Your task to perform on an android device: turn off notifications settings in the gmail app Image 0: 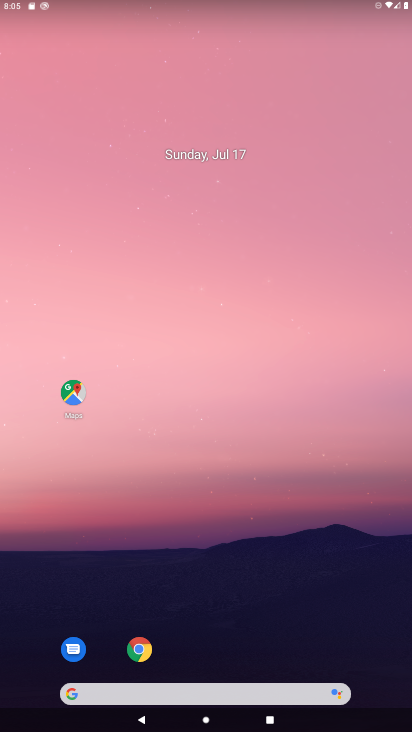
Step 0: drag from (202, 671) to (210, 51)
Your task to perform on an android device: turn off notifications settings in the gmail app Image 1: 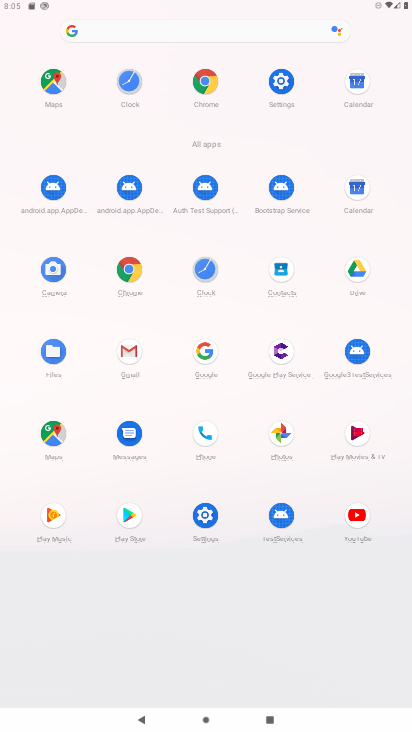
Step 1: click (131, 345)
Your task to perform on an android device: turn off notifications settings in the gmail app Image 2: 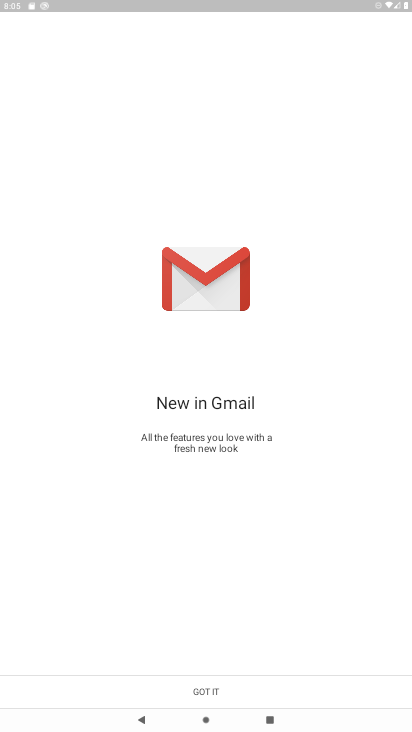
Step 2: click (176, 687)
Your task to perform on an android device: turn off notifications settings in the gmail app Image 3: 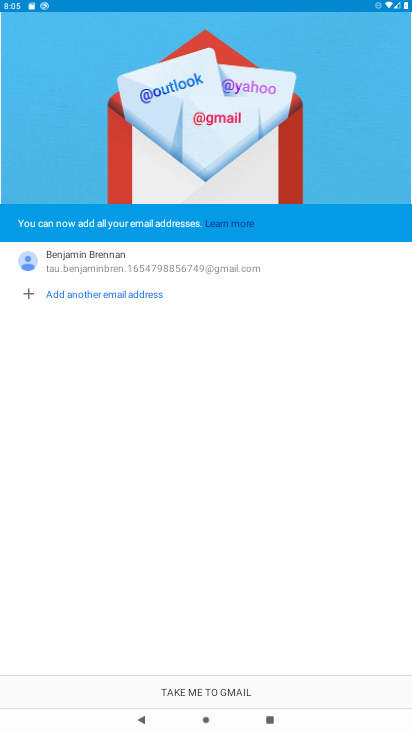
Step 3: click (175, 686)
Your task to perform on an android device: turn off notifications settings in the gmail app Image 4: 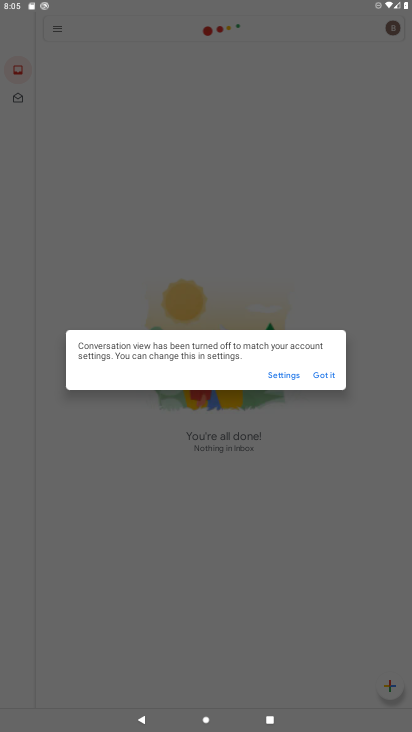
Step 4: click (315, 372)
Your task to perform on an android device: turn off notifications settings in the gmail app Image 5: 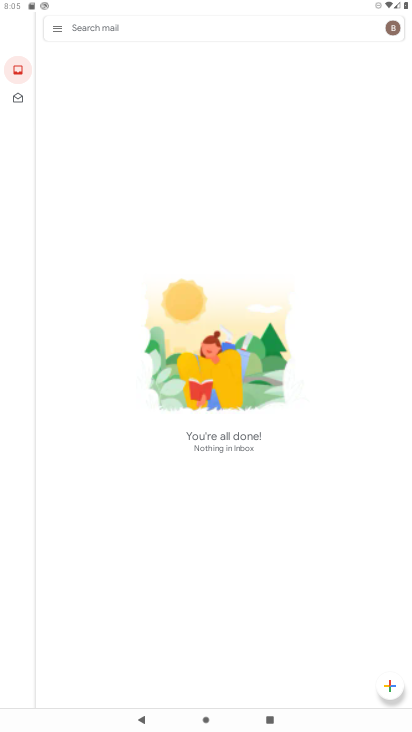
Step 5: click (53, 26)
Your task to perform on an android device: turn off notifications settings in the gmail app Image 6: 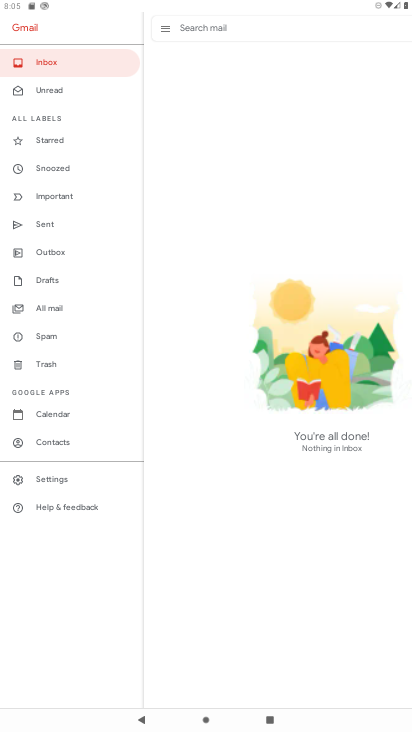
Step 6: click (36, 482)
Your task to perform on an android device: turn off notifications settings in the gmail app Image 7: 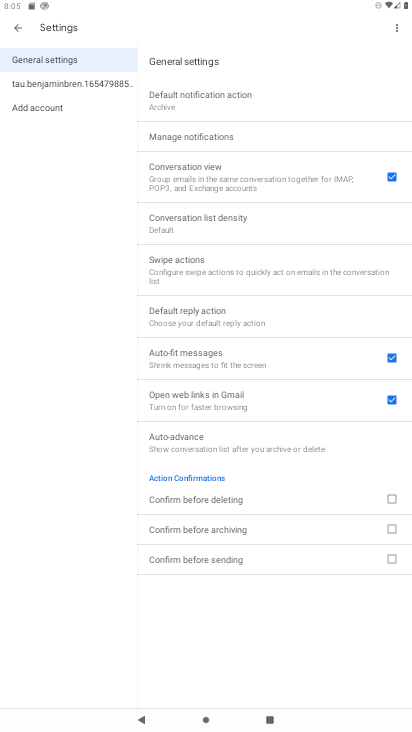
Step 7: click (217, 133)
Your task to perform on an android device: turn off notifications settings in the gmail app Image 8: 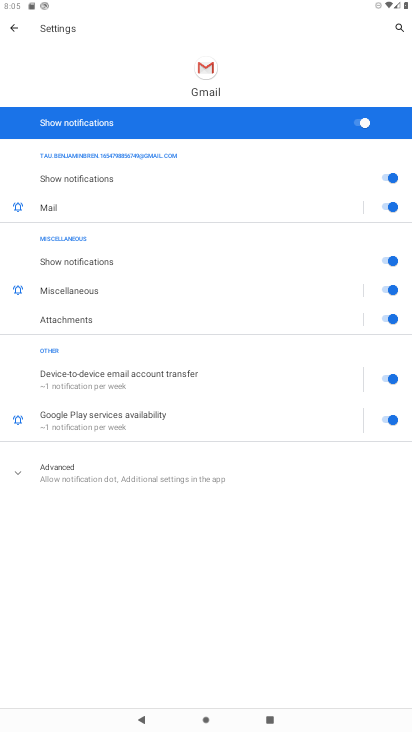
Step 8: click (354, 120)
Your task to perform on an android device: turn off notifications settings in the gmail app Image 9: 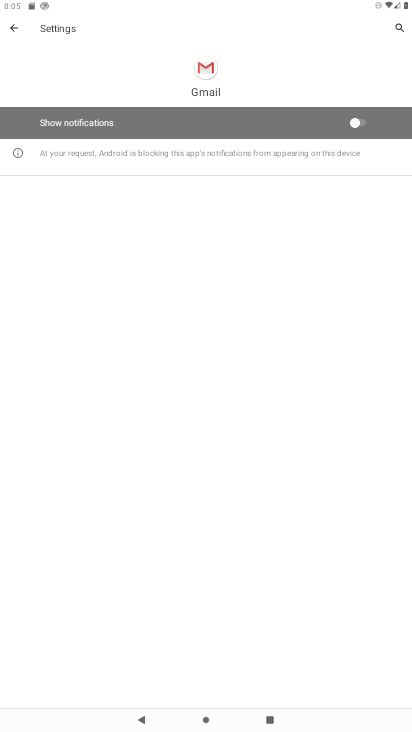
Step 9: task complete